Your task to perform on an android device: Open network settings Image 0: 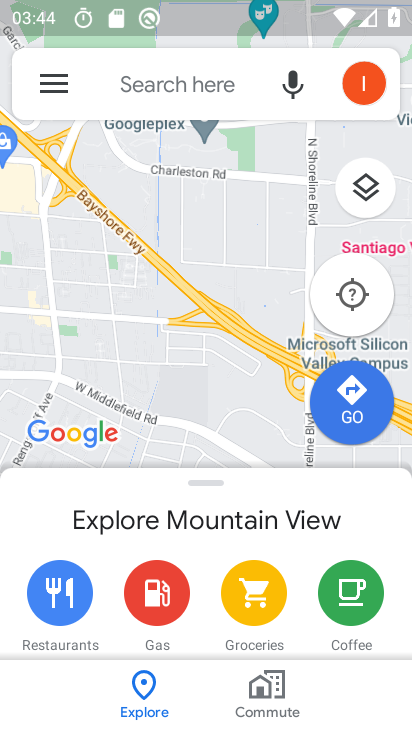
Step 0: press home button
Your task to perform on an android device: Open network settings Image 1: 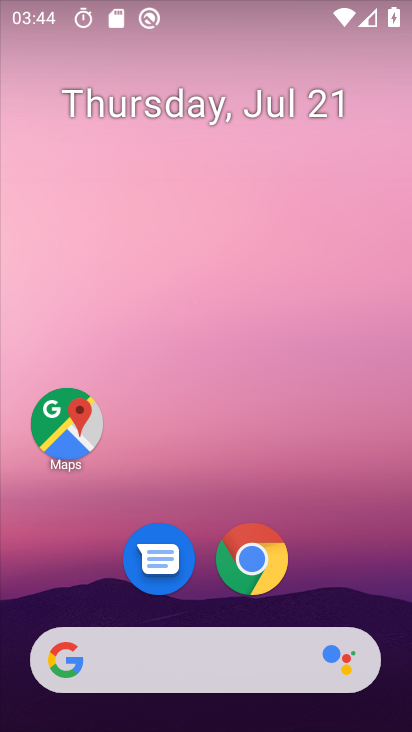
Step 1: drag from (349, 559) to (395, 126)
Your task to perform on an android device: Open network settings Image 2: 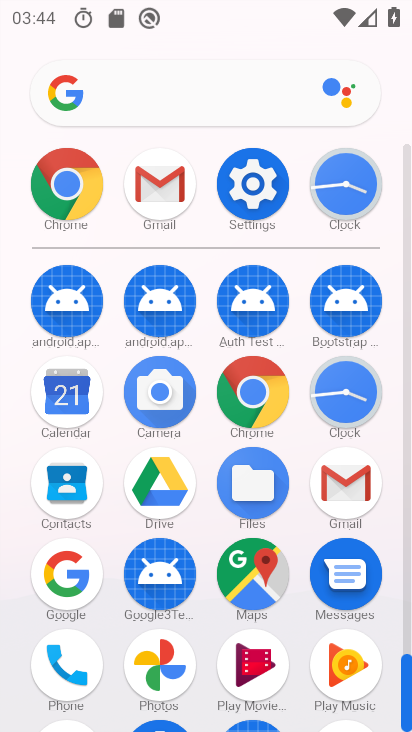
Step 2: click (257, 195)
Your task to perform on an android device: Open network settings Image 3: 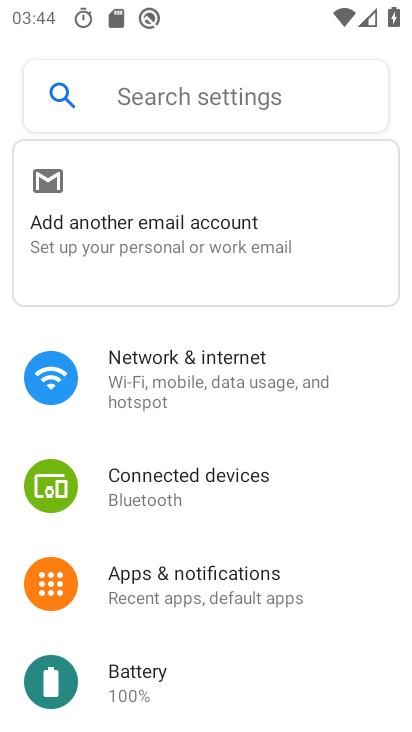
Step 3: drag from (343, 440) to (344, 324)
Your task to perform on an android device: Open network settings Image 4: 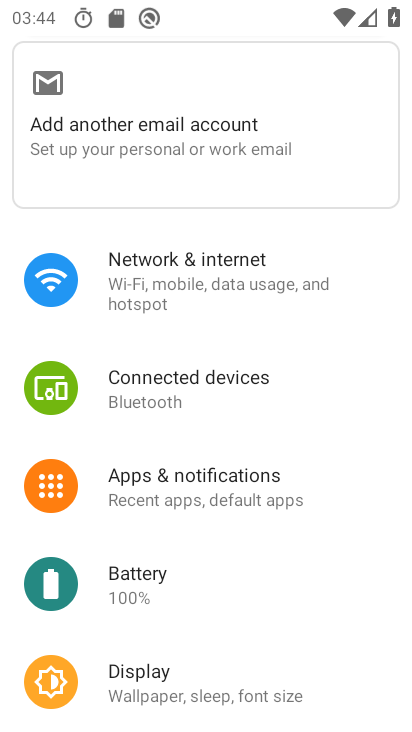
Step 4: drag from (354, 437) to (355, 317)
Your task to perform on an android device: Open network settings Image 5: 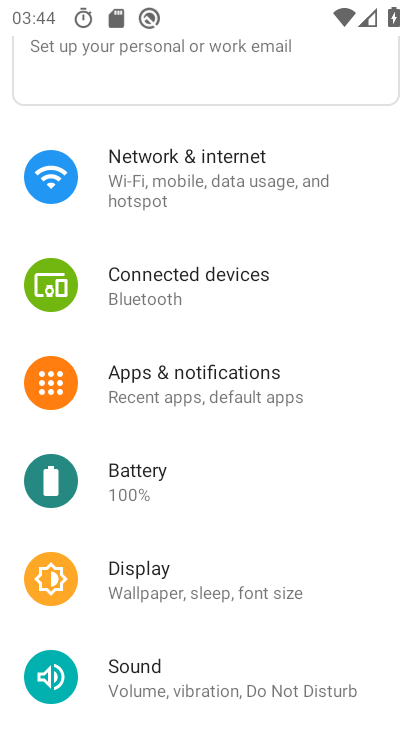
Step 5: drag from (353, 451) to (353, 322)
Your task to perform on an android device: Open network settings Image 6: 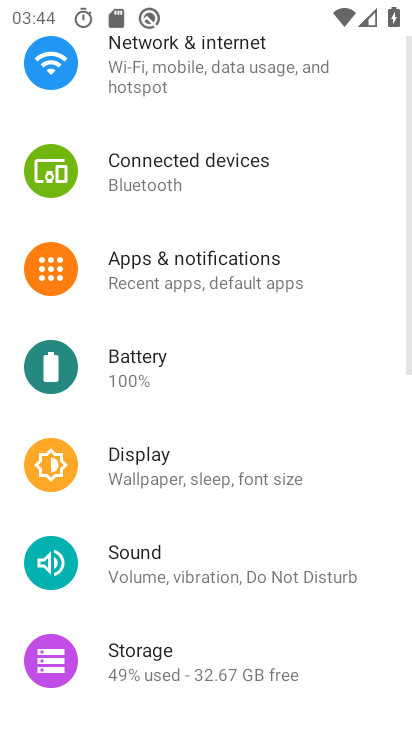
Step 6: drag from (353, 457) to (345, 348)
Your task to perform on an android device: Open network settings Image 7: 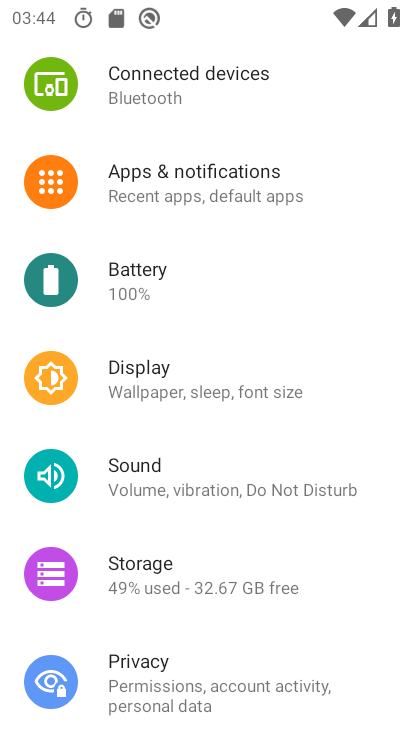
Step 7: drag from (368, 533) to (364, 371)
Your task to perform on an android device: Open network settings Image 8: 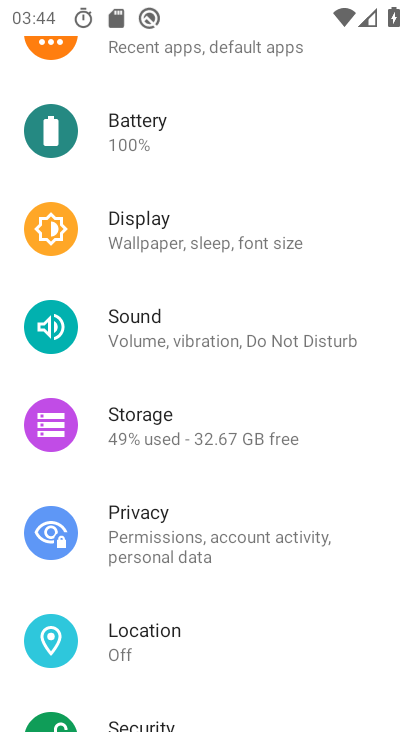
Step 8: drag from (357, 235) to (363, 331)
Your task to perform on an android device: Open network settings Image 9: 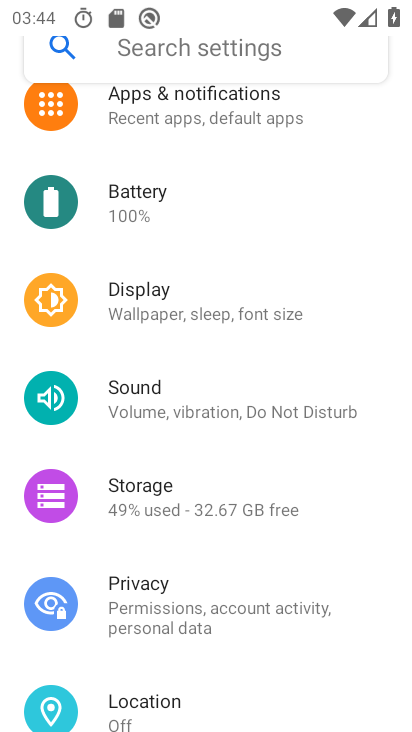
Step 9: drag from (370, 216) to (381, 318)
Your task to perform on an android device: Open network settings Image 10: 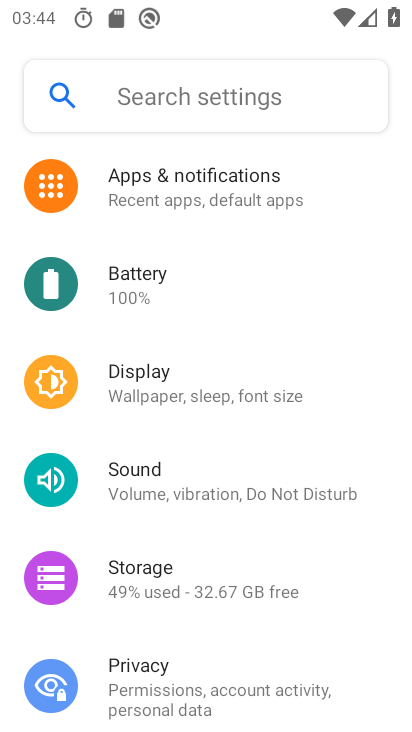
Step 10: drag from (360, 203) to (359, 326)
Your task to perform on an android device: Open network settings Image 11: 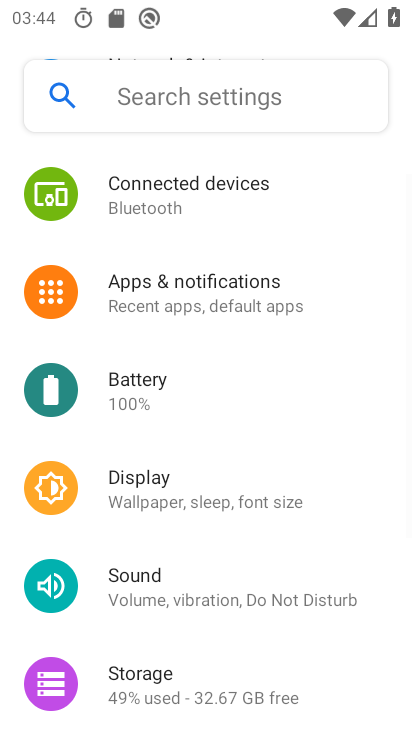
Step 11: drag from (336, 218) to (343, 435)
Your task to perform on an android device: Open network settings Image 12: 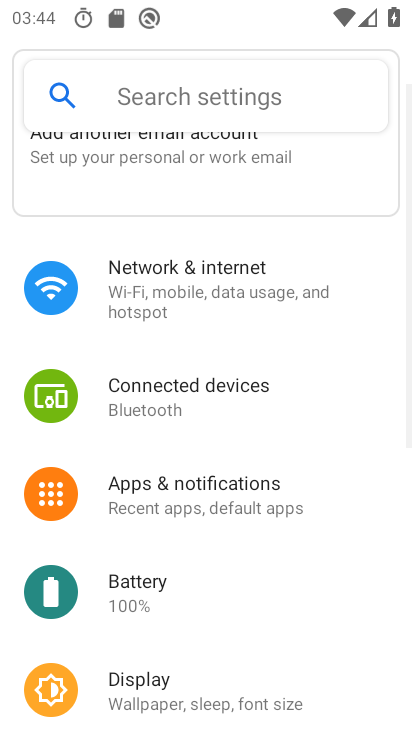
Step 12: click (304, 266)
Your task to perform on an android device: Open network settings Image 13: 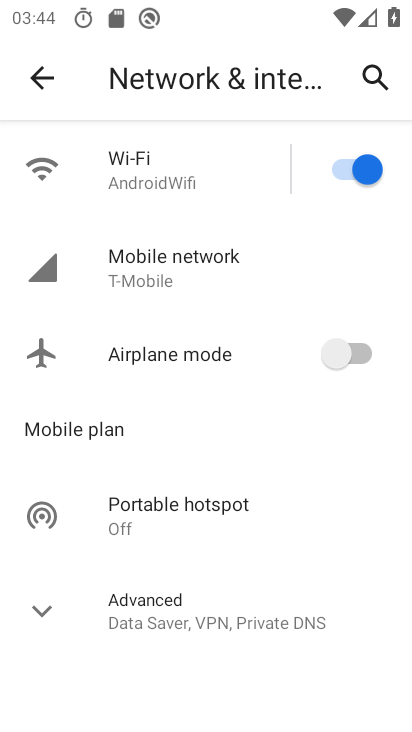
Step 13: task complete